Your task to perform on an android device: star an email in the gmail app Image 0: 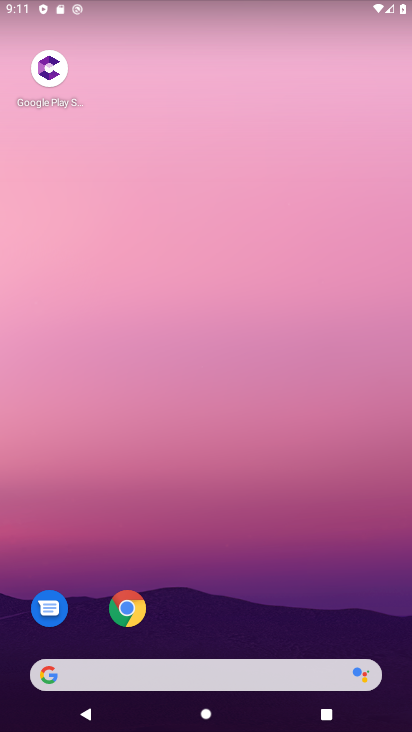
Step 0: drag from (389, 632) to (327, 166)
Your task to perform on an android device: star an email in the gmail app Image 1: 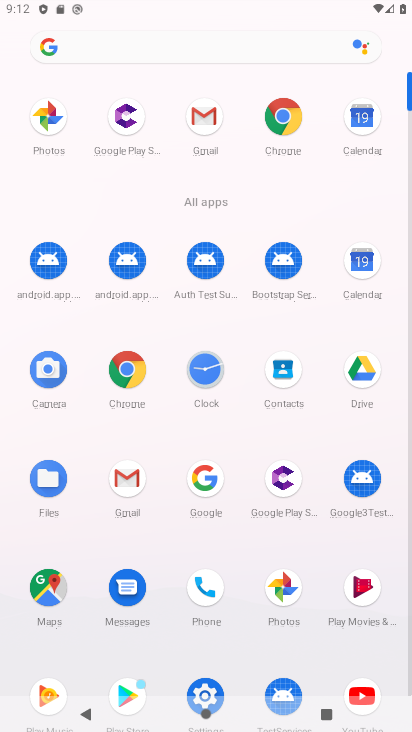
Step 1: click (410, 657)
Your task to perform on an android device: star an email in the gmail app Image 2: 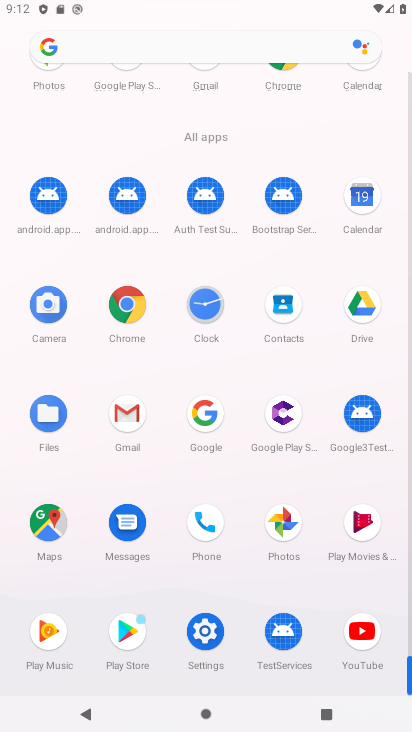
Step 2: click (123, 411)
Your task to perform on an android device: star an email in the gmail app Image 3: 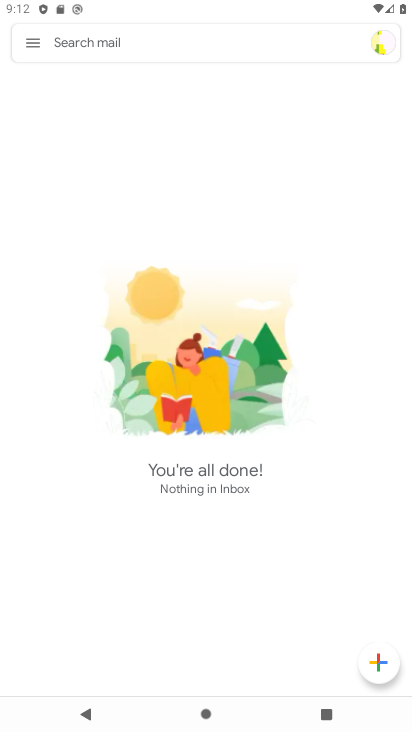
Step 3: click (31, 43)
Your task to perform on an android device: star an email in the gmail app Image 4: 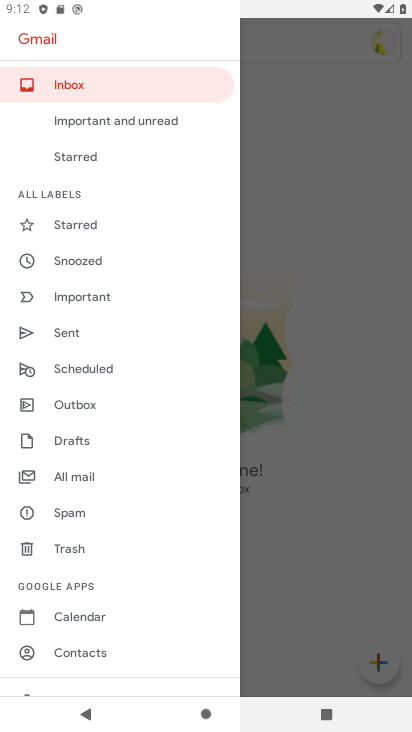
Step 4: click (71, 479)
Your task to perform on an android device: star an email in the gmail app Image 5: 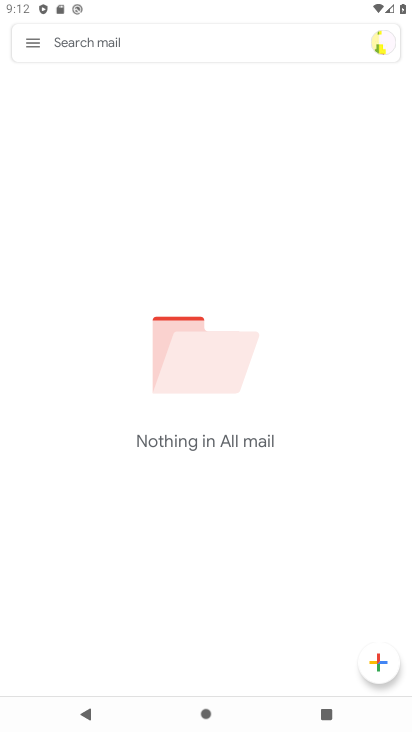
Step 5: task complete